Your task to perform on an android device: change alarm snooze length Image 0: 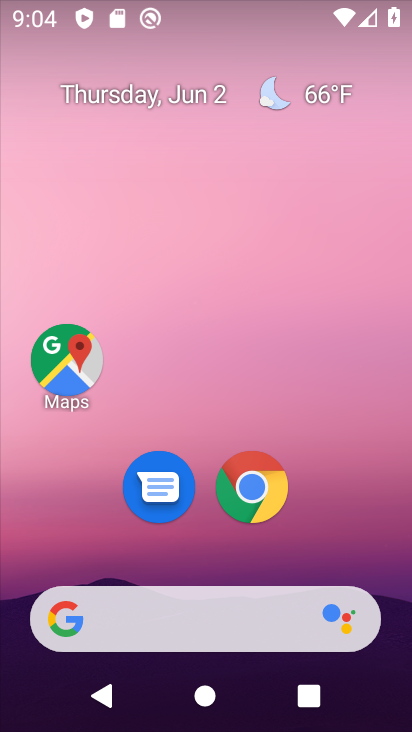
Step 0: drag from (243, 727) to (227, 110)
Your task to perform on an android device: change alarm snooze length Image 1: 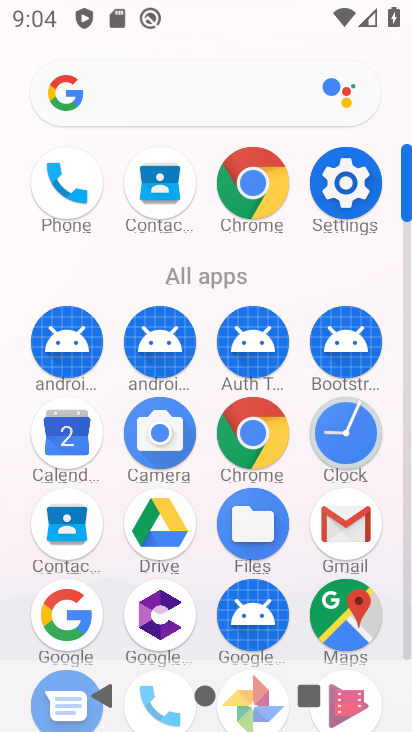
Step 1: click (345, 439)
Your task to perform on an android device: change alarm snooze length Image 2: 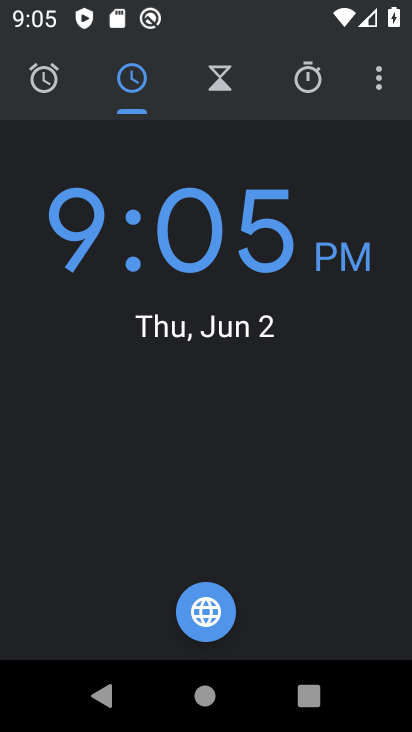
Step 2: click (379, 87)
Your task to perform on an android device: change alarm snooze length Image 3: 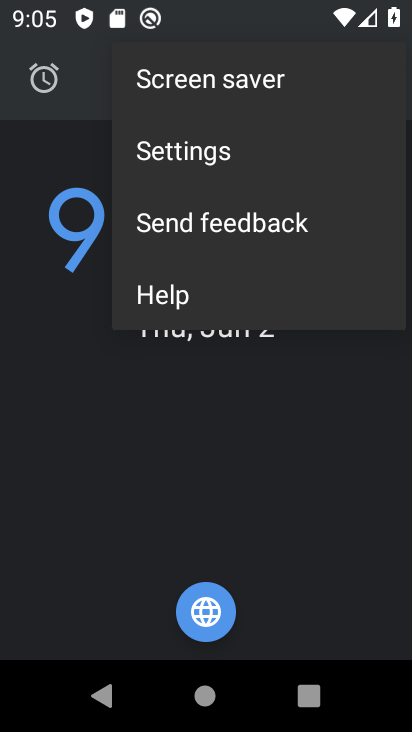
Step 3: click (190, 146)
Your task to perform on an android device: change alarm snooze length Image 4: 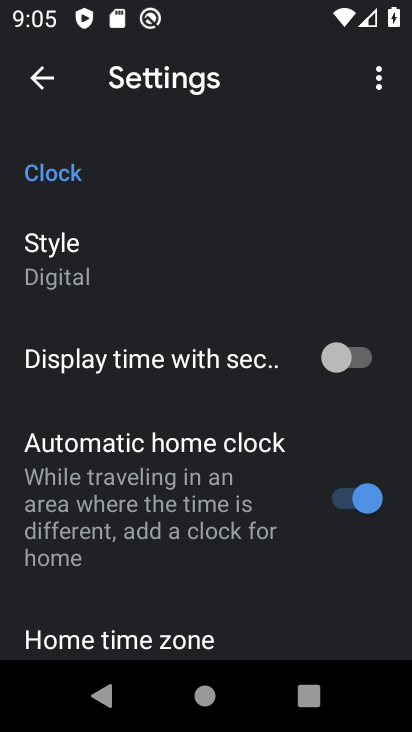
Step 4: drag from (176, 599) to (142, 253)
Your task to perform on an android device: change alarm snooze length Image 5: 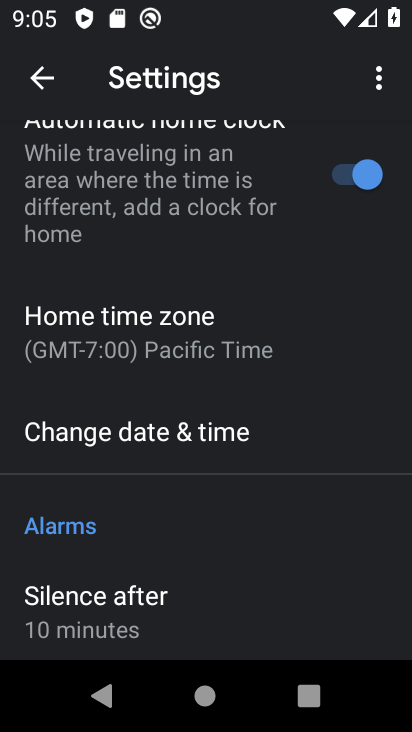
Step 5: drag from (195, 616) to (180, 277)
Your task to perform on an android device: change alarm snooze length Image 6: 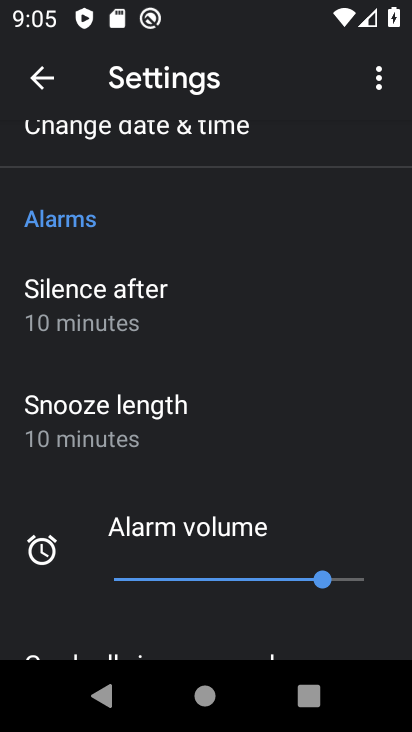
Step 6: click (121, 425)
Your task to perform on an android device: change alarm snooze length Image 7: 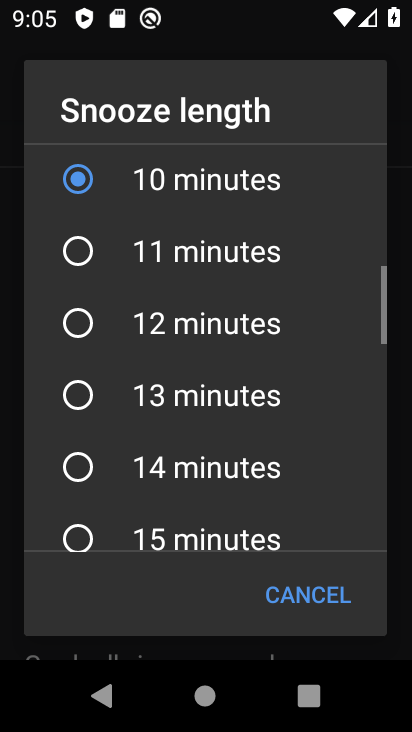
Step 7: click (81, 470)
Your task to perform on an android device: change alarm snooze length Image 8: 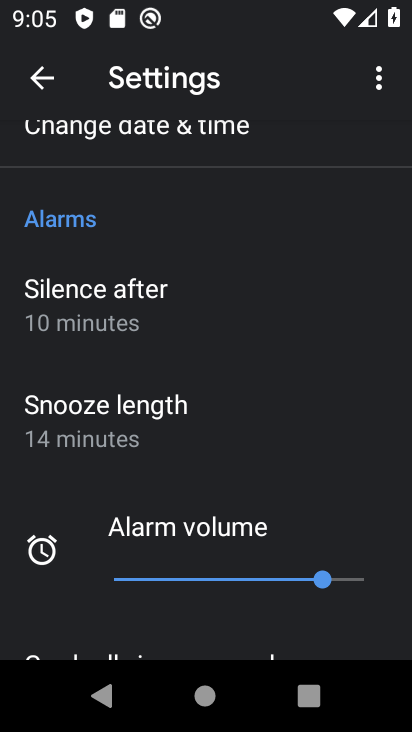
Step 8: task complete